Your task to perform on an android device: uninstall "WhatsApp Messenger" Image 0: 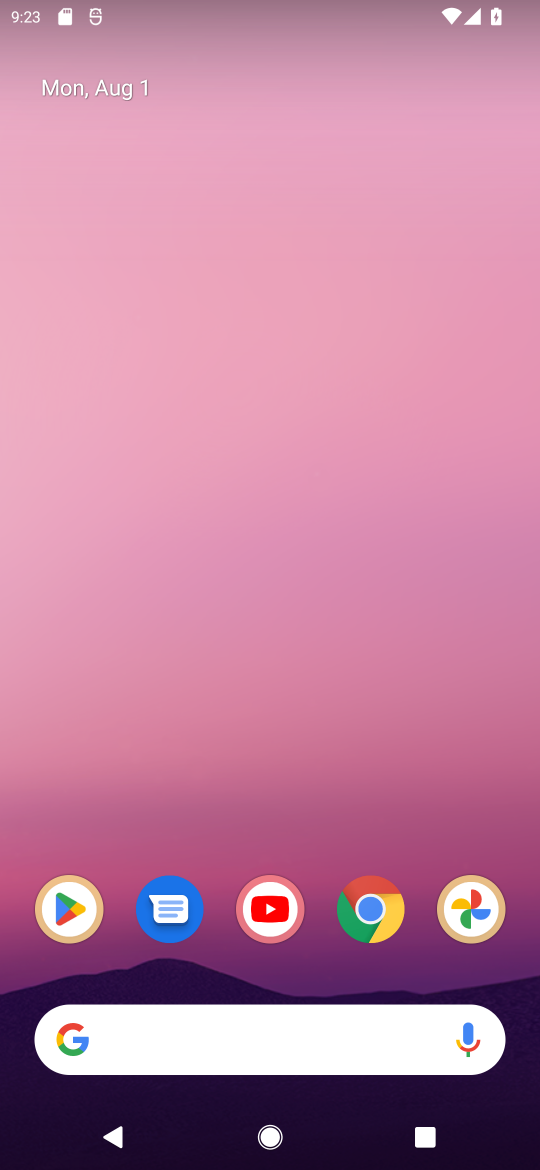
Step 0: click (58, 909)
Your task to perform on an android device: uninstall "WhatsApp Messenger" Image 1: 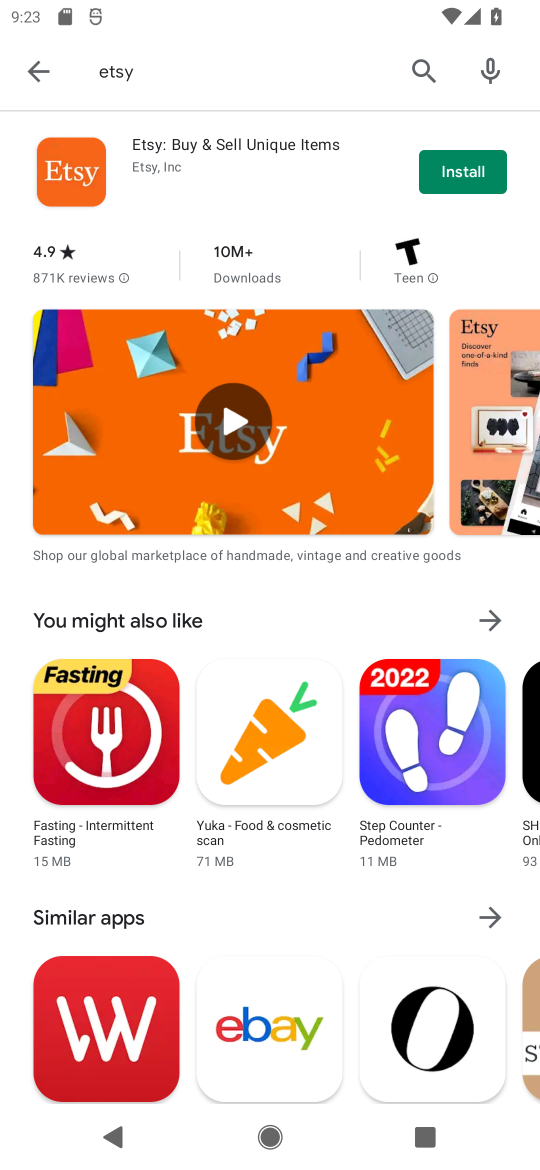
Step 1: click (220, 64)
Your task to perform on an android device: uninstall "WhatsApp Messenger" Image 2: 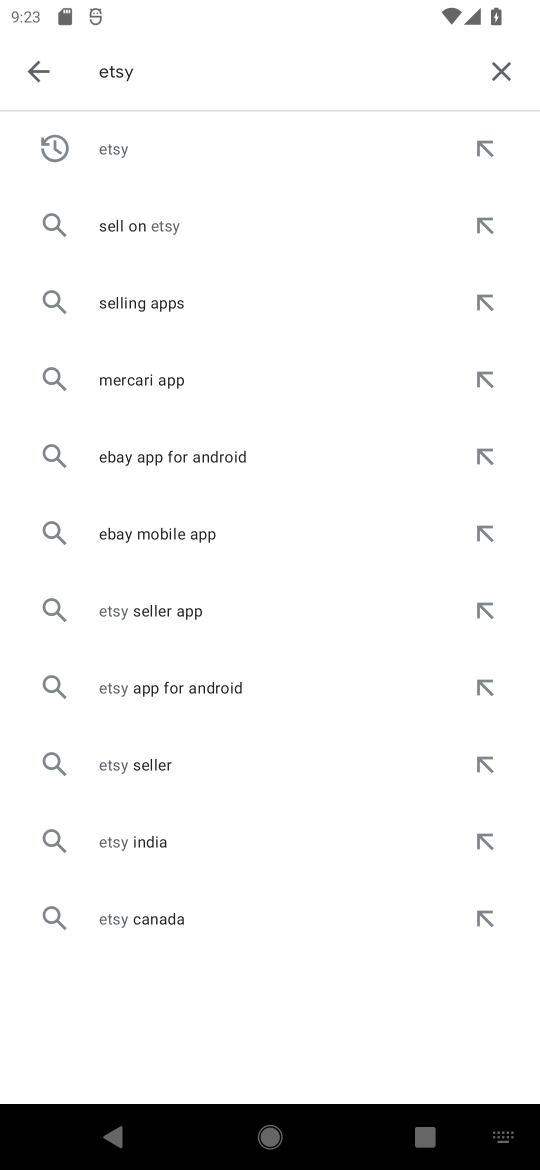
Step 2: click (499, 61)
Your task to perform on an android device: uninstall "WhatsApp Messenger" Image 3: 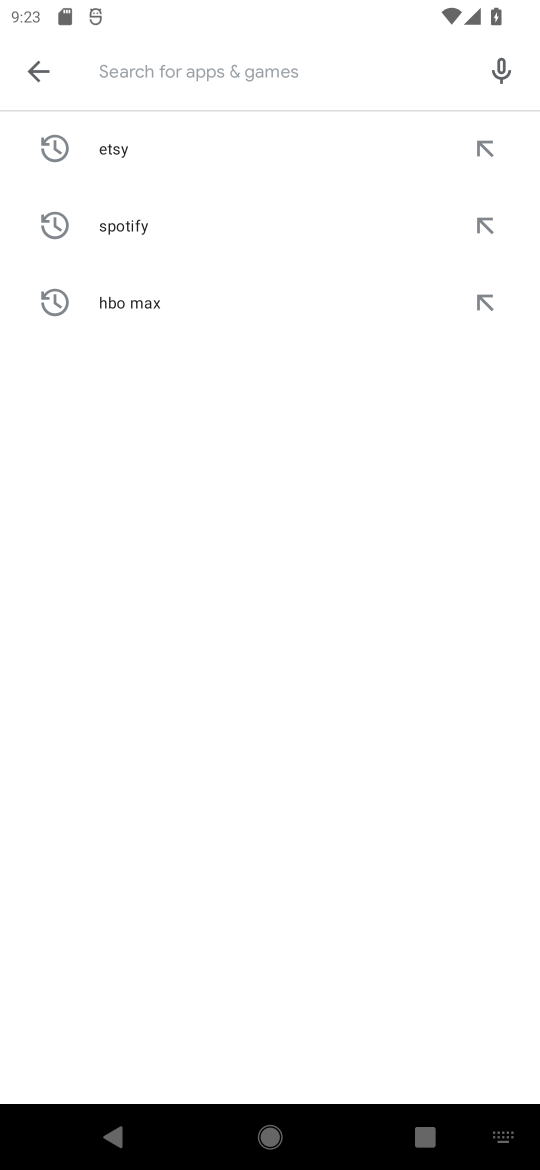
Step 3: type "whatsapp messenger"
Your task to perform on an android device: uninstall "WhatsApp Messenger" Image 4: 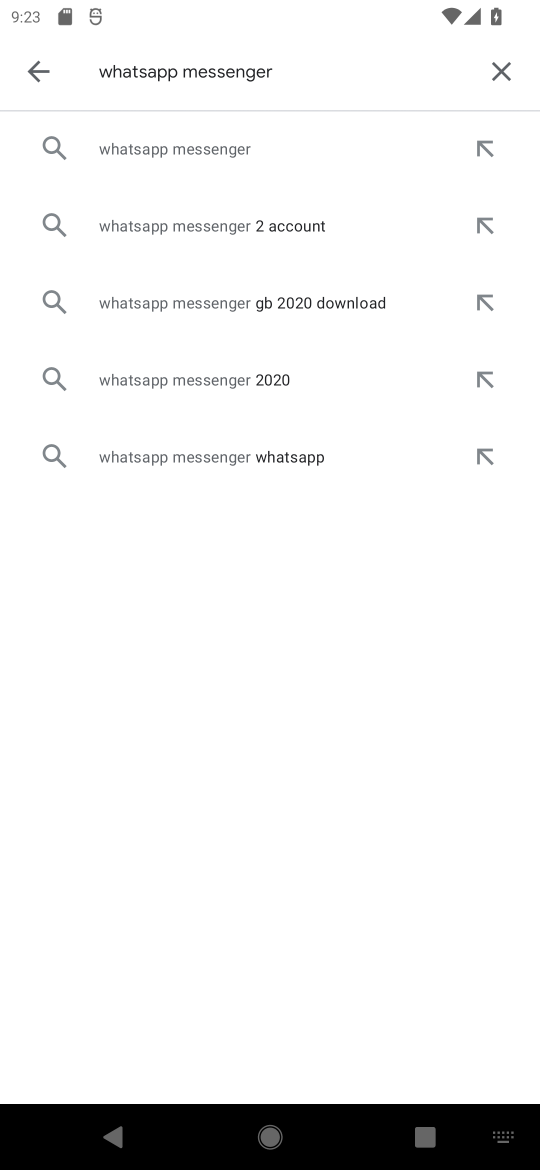
Step 4: click (164, 147)
Your task to perform on an android device: uninstall "WhatsApp Messenger" Image 5: 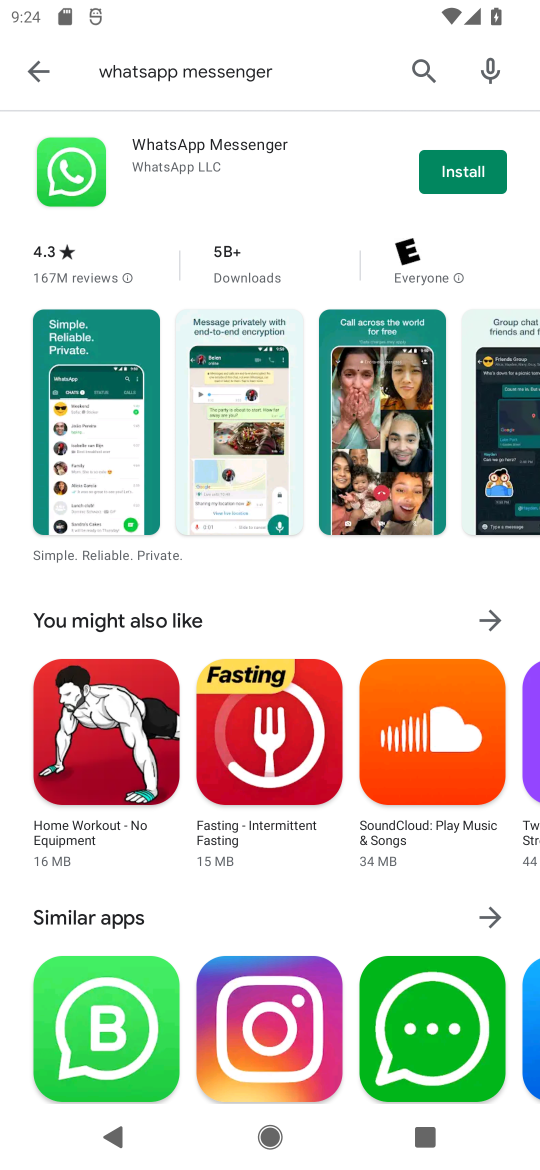
Step 5: task complete